Your task to perform on an android device: Go to ESPN.com Image 0: 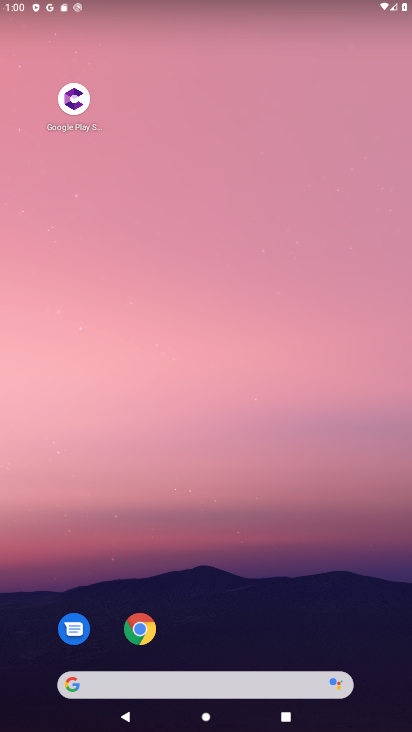
Step 0: click (148, 638)
Your task to perform on an android device: Go to ESPN.com Image 1: 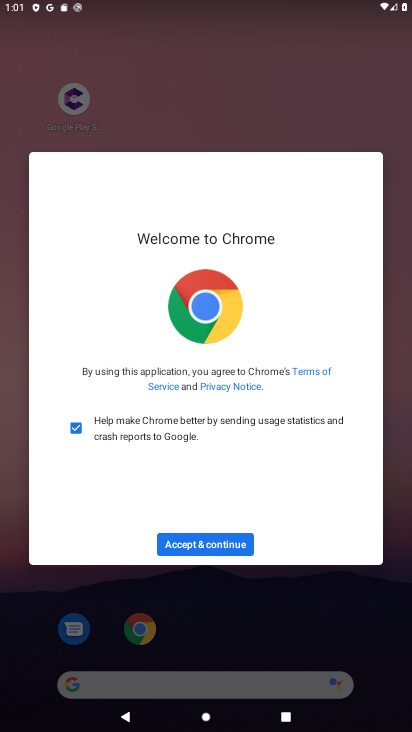
Step 1: click (224, 539)
Your task to perform on an android device: Go to ESPN.com Image 2: 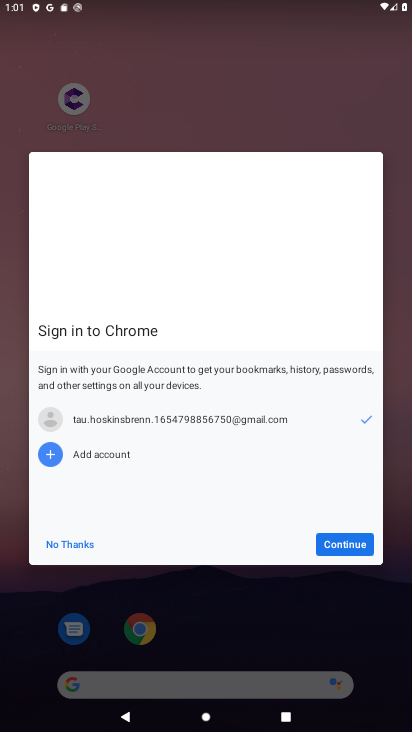
Step 2: click (333, 538)
Your task to perform on an android device: Go to ESPN.com Image 3: 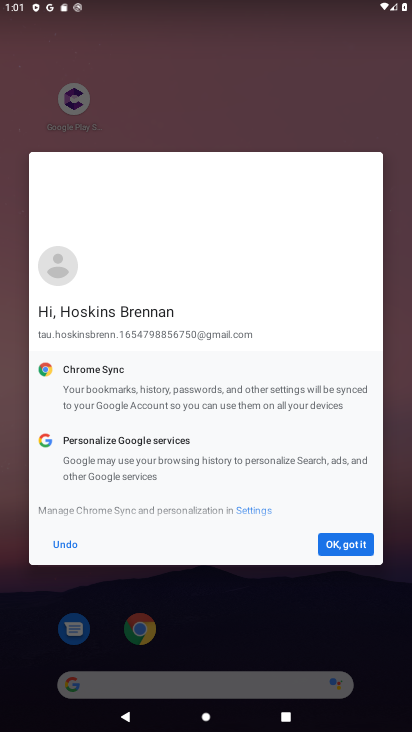
Step 3: click (329, 542)
Your task to perform on an android device: Go to ESPN.com Image 4: 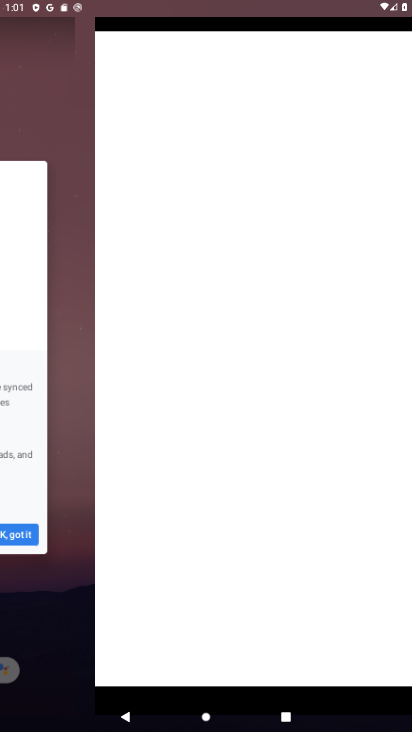
Step 4: click (334, 546)
Your task to perform on an android device: Go to ESPN.com Image 5: 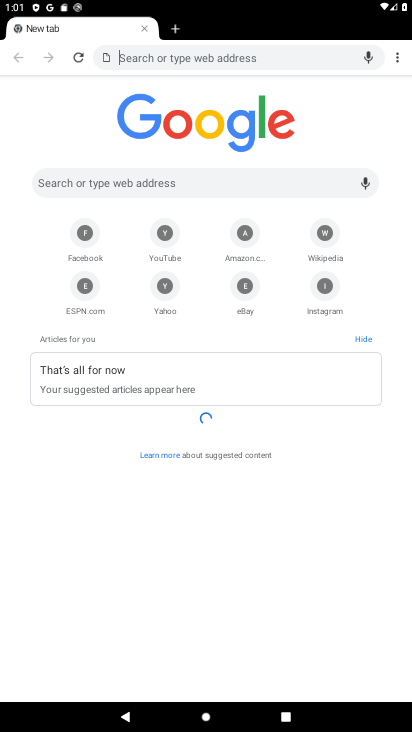
Step 5: click (78, 290)
Your task to perform on an android device: Go to ESPN.com Image 6: 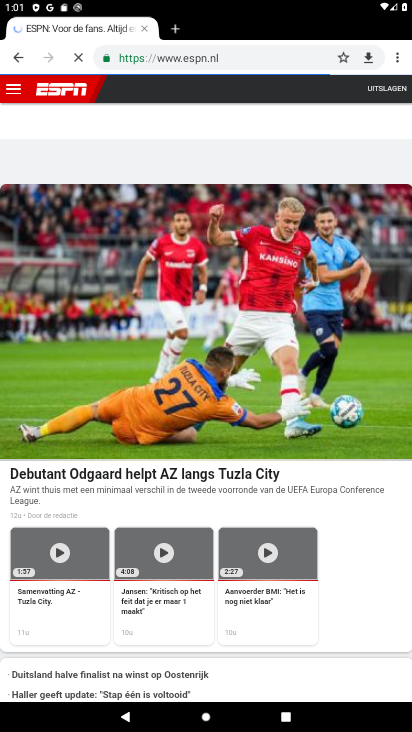
Step 6: task complete